Your task to perform on an android device: Open Youtube and go to the subscriptions tab Image 0: 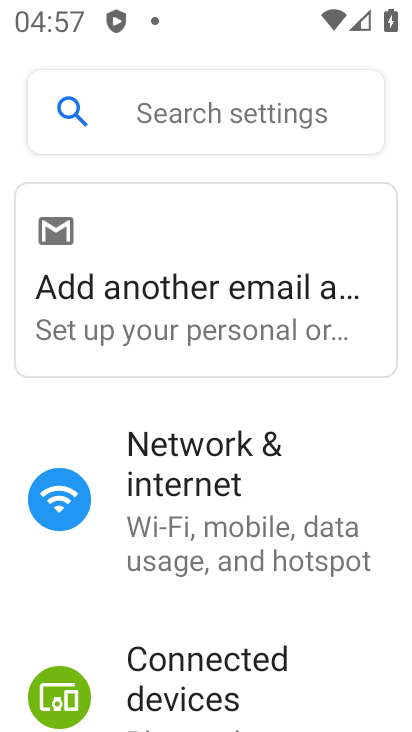
Step 0: press home button
Your task to perform on an android device: Open Youtube and go to the subscriptions tab Image 1: 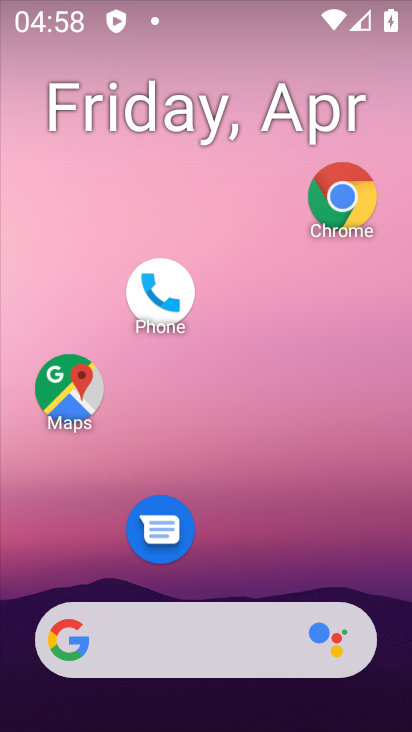
Step 1: drag from (239, 579) to (253, 255)
Your task to perform on an android device: Open Youtube and go to the subscriptions tab Image 2: 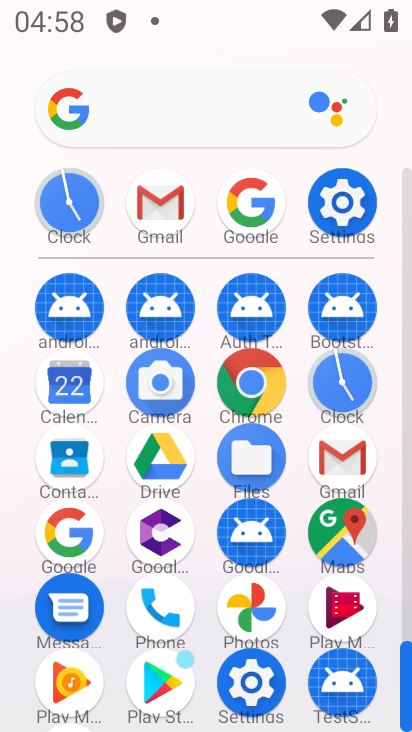
Step 2: drag from (300, 573) to (331, 298)
Your task to perform on an android device: Open Youtube and go to the subscriptions tab Image 3: 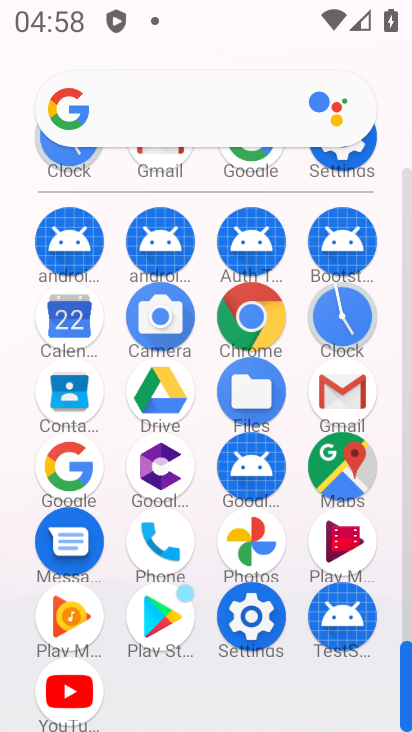
Step 3: click (66, 688)
Your task to perform on an android device: Open Youtube and go to the subscriptions tab Image 4: 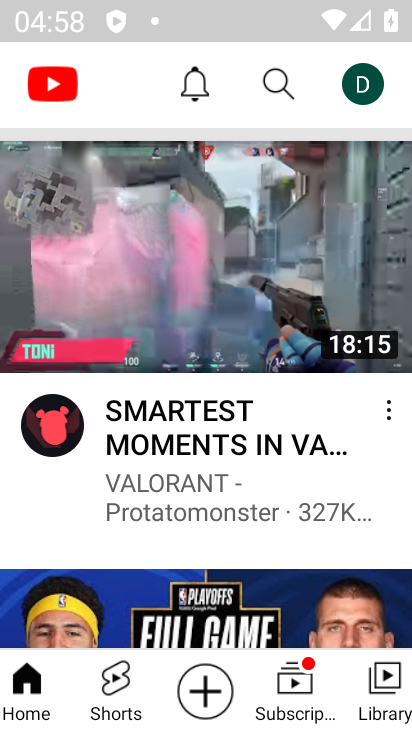
Step 4: click (298, 681)
Your task to perform on an android device: Open Youtube and go to the subscriptions tab Image 5: 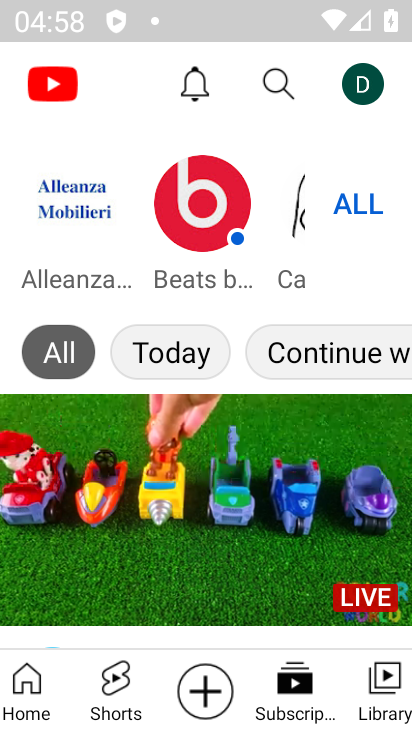
Step 5: task complete